Your task to perform on an android device: Open network settings Image 0: 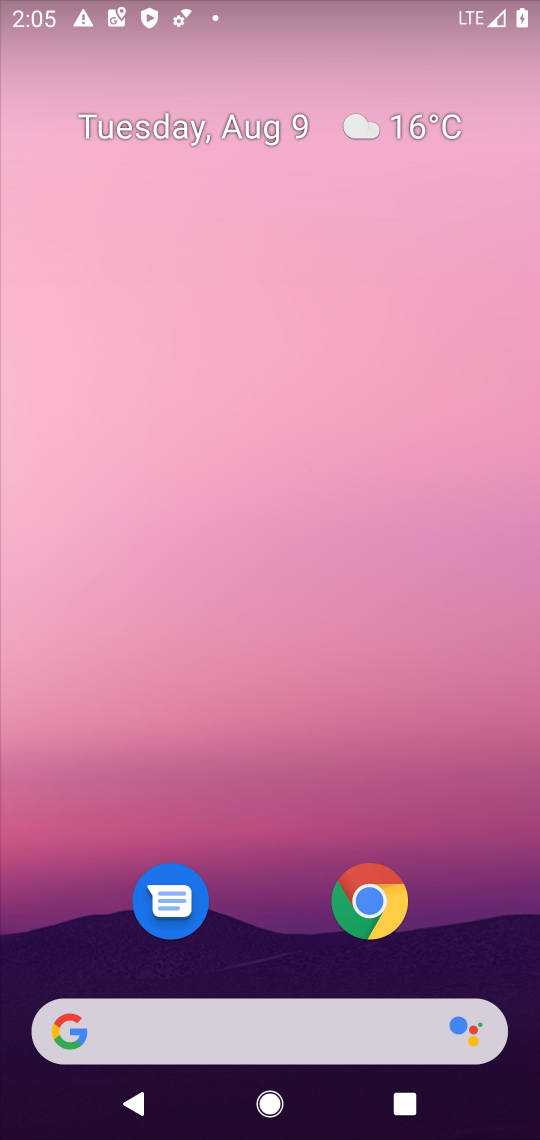
Step 0: drag from (486, 712) to (479, 73)
Your task to perform on an android device: Open network settings Image 1: 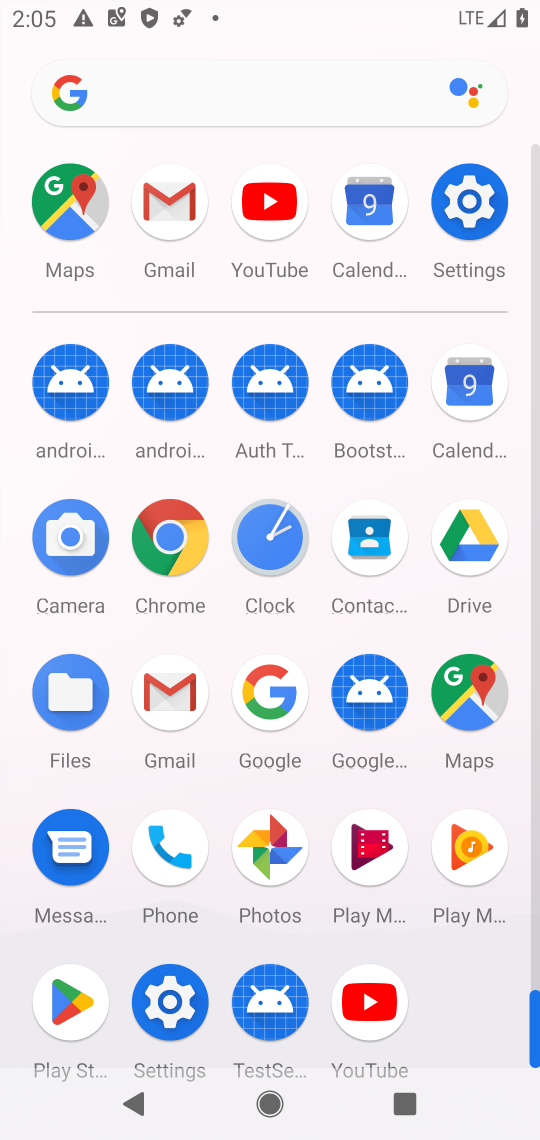
Step 1: click (174, 1007)
Your task to perform on an android device: Open network settings Image 2: 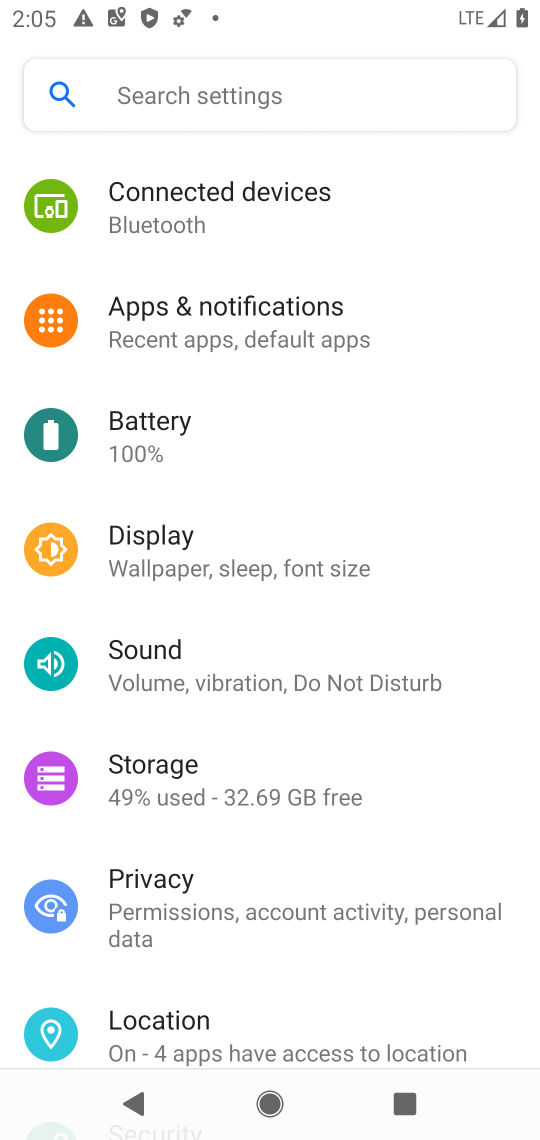
Step 2: drag from (403, 289) to (437, 575)
Your task to perform on an android device: Open network settings Image 3: 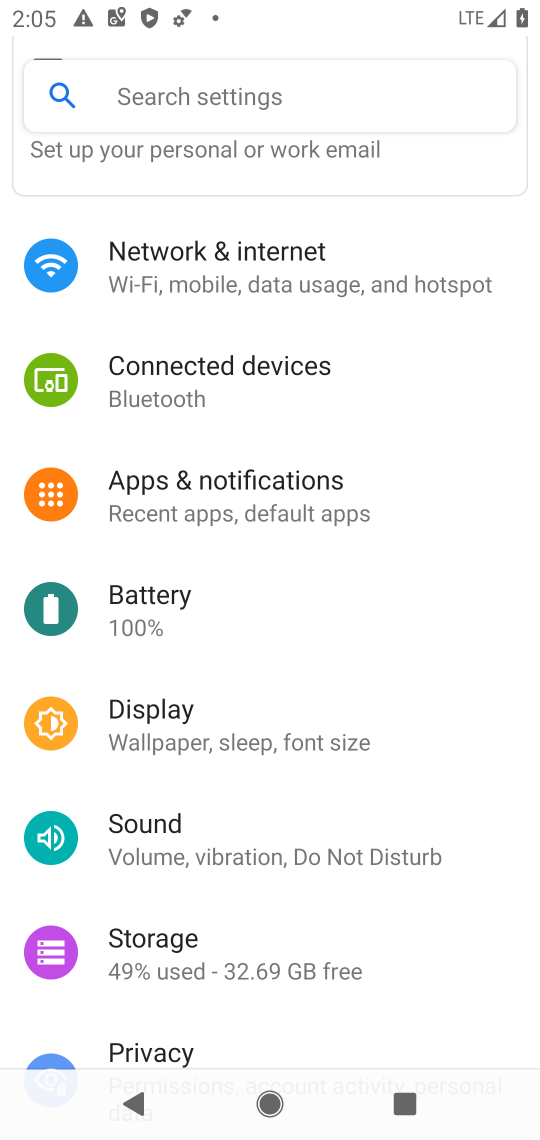
Step 3: click (234, 263)
Your task to perform on an android device: Open network settings Image 4: 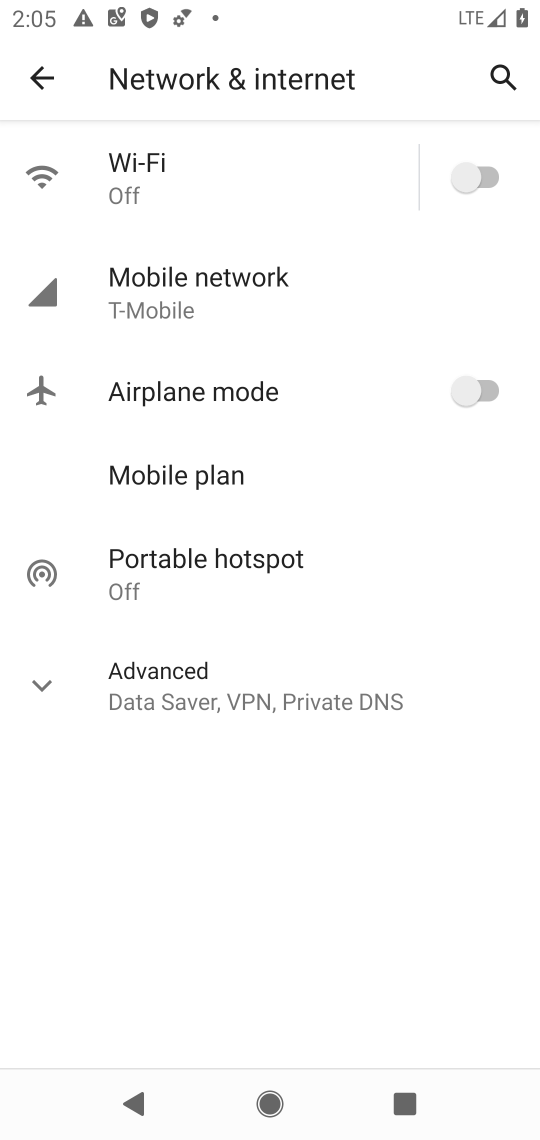
Step 4: click (216, 279)
Your task to perform on an android device: Open network settings Image 5: 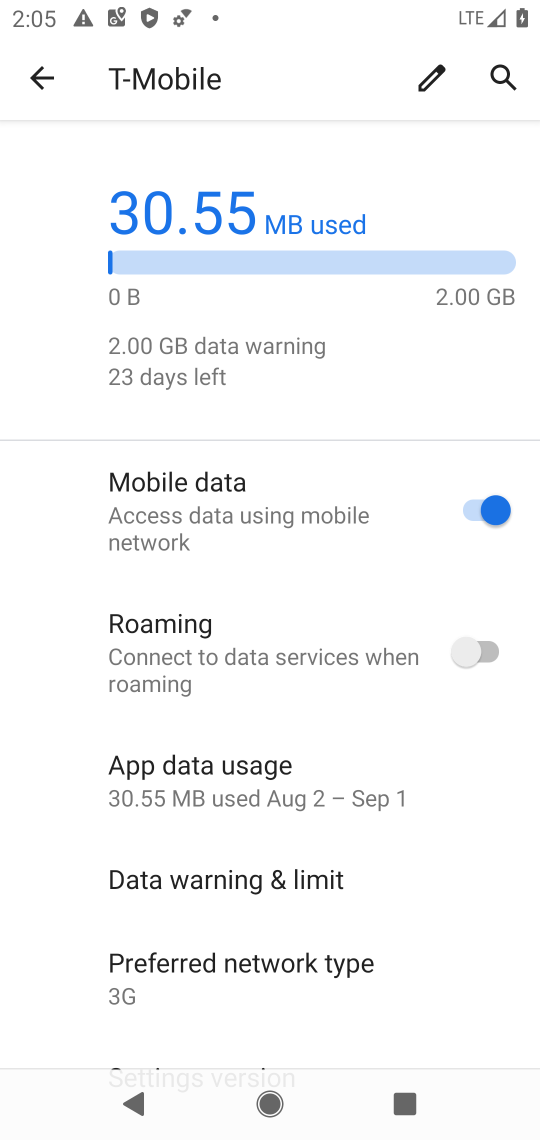
Step 5: task complete